Your task to perform on an android device: Clear all items from cart on newegg. Search for jbl flip 4 on newegg, select the first entry, and add it to the cart. Image 0: 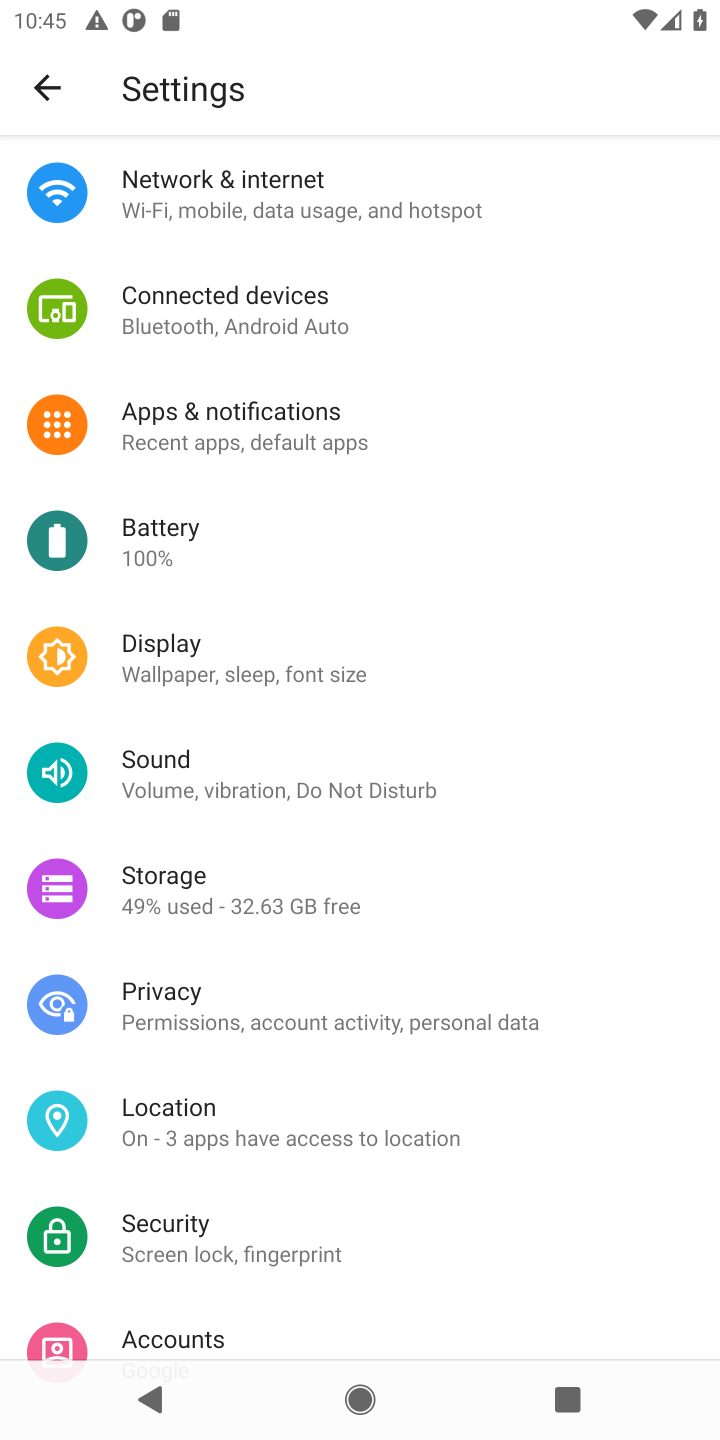
Step 0: press home button
Your task to perform on an android device: Clear all items from cart on newegg. Search for jbl flip 4 on newegg, select the first entry, and add it to the cart. Image 1: 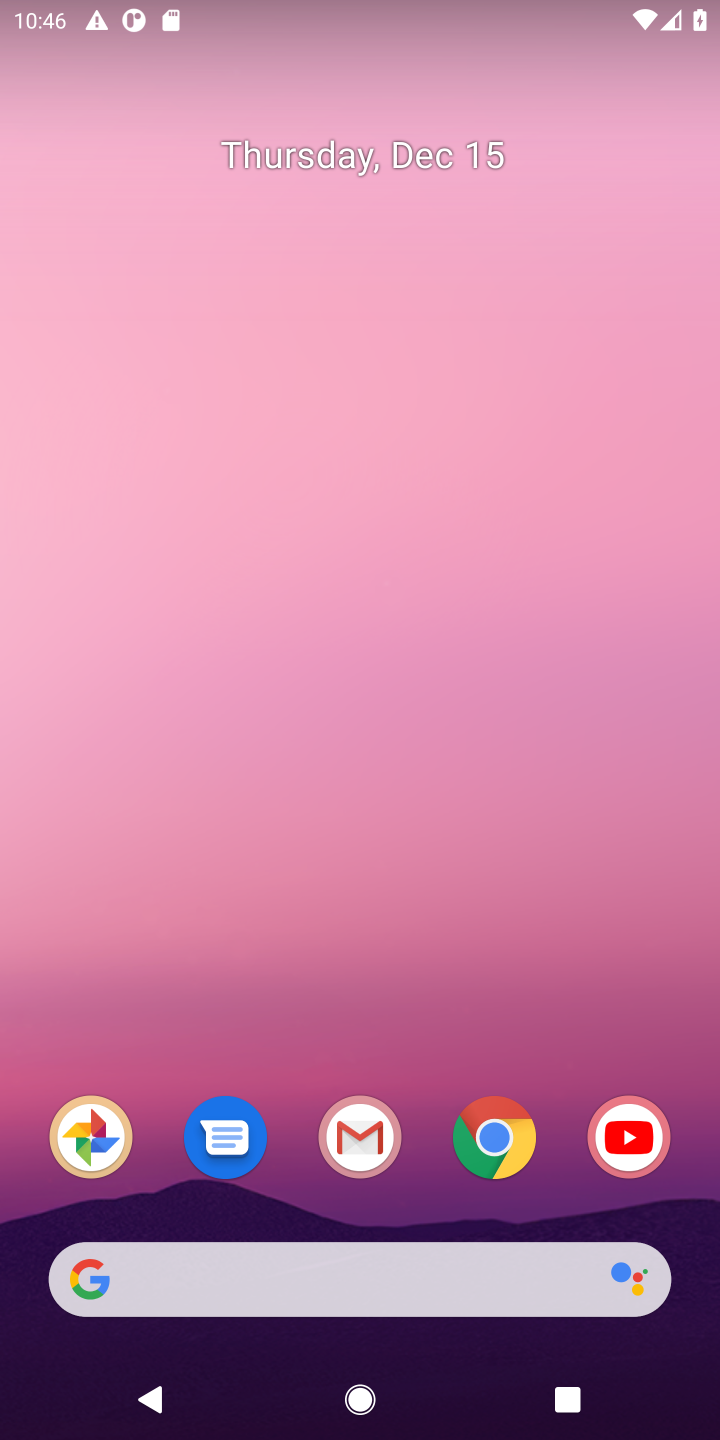
Step 1: drag from (309, 1282) to (314, 172)
Your task to perform on an android device: Clear all items from cart on newegg. Search for jbl flip 4 on newegg, select the first entry, and add it to the cart. Image 2: 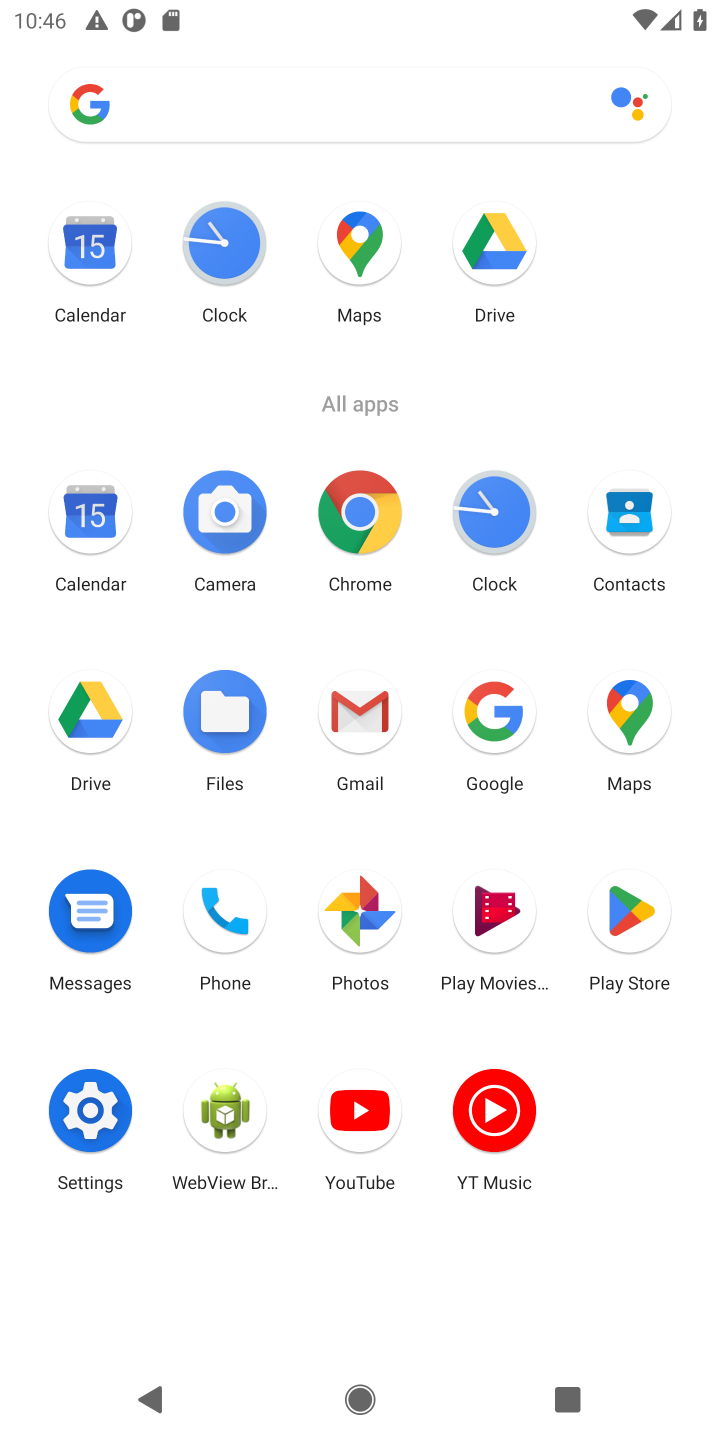
Step 2: click (483, 725)
Your task to perform on an android device: Clear all items from cart on newegg. Search for jbl flip 4 on newegg, select the first entry, and add it to the cart. Image 3: 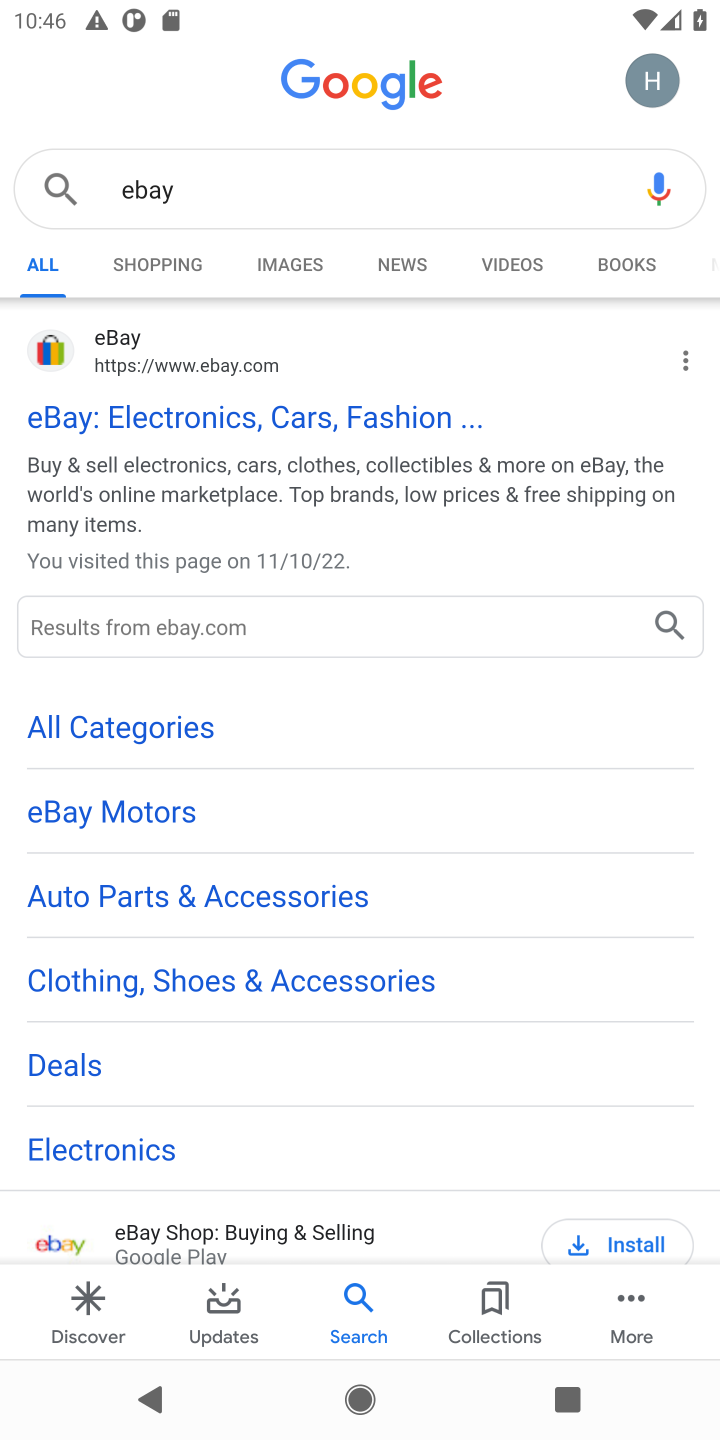
Step 3: click (157, 194)
Your task to perform on an android device: Clear all items from cart on newegg. Search for jbl flip 4 on newegg, select the first entry, and add it to the cart. Image 4: 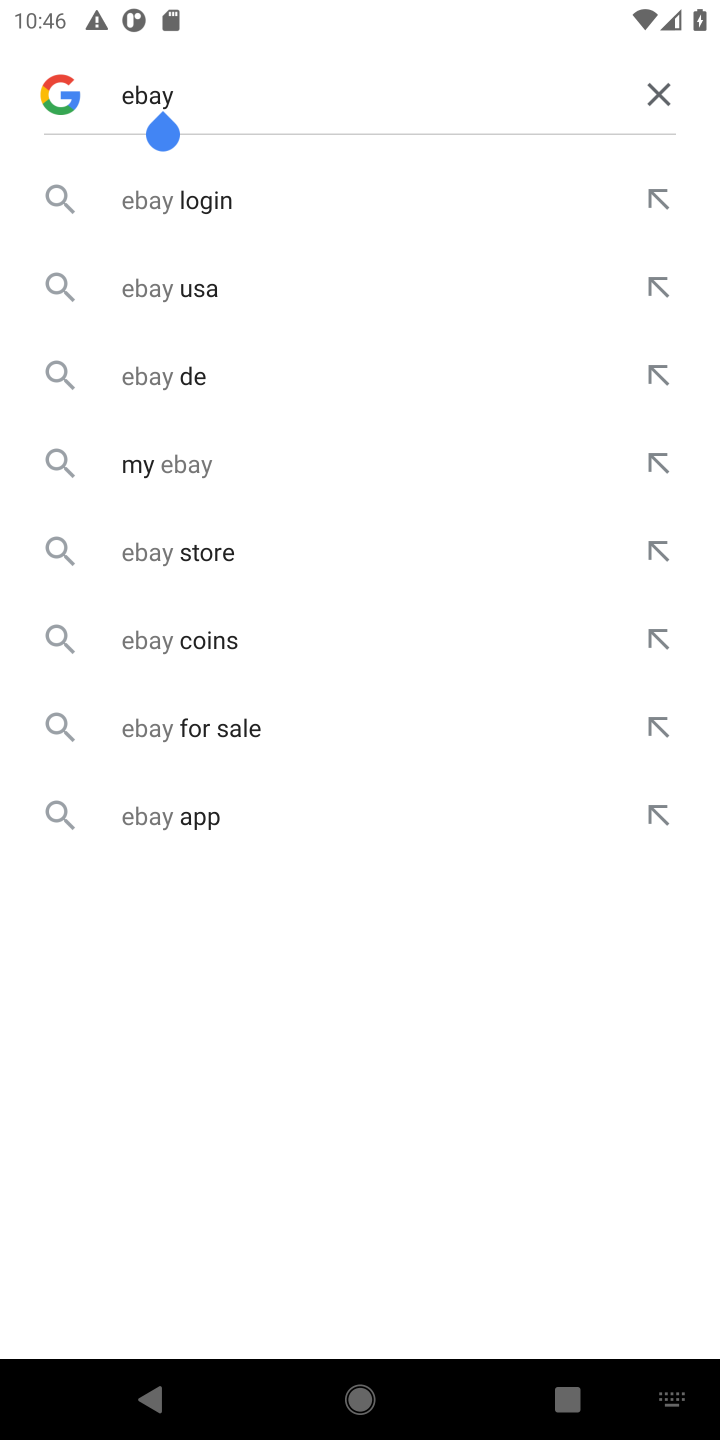
Step 4: click (648, 98)
Your task to perform on an android device: Clear all items from cart on newegg. Search for jbl flip 4 on newegg, select the first entry, and add it to the cart. Image 5: 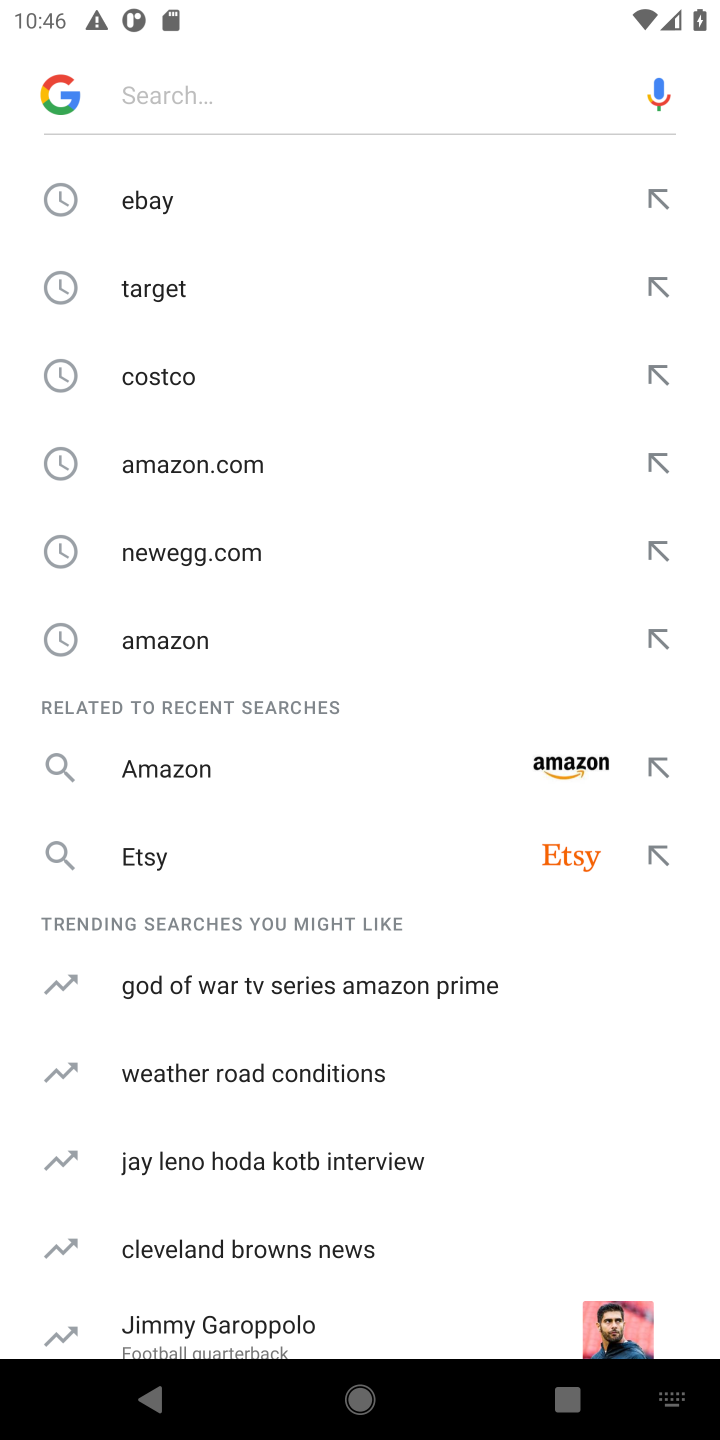
Step 5: click (181, 550)
Your task to perform on an android device: Clear all items from cart on newegg. Search for jbl flip 4 on newegg, select the first entry, and add it to the cart. Image 6: 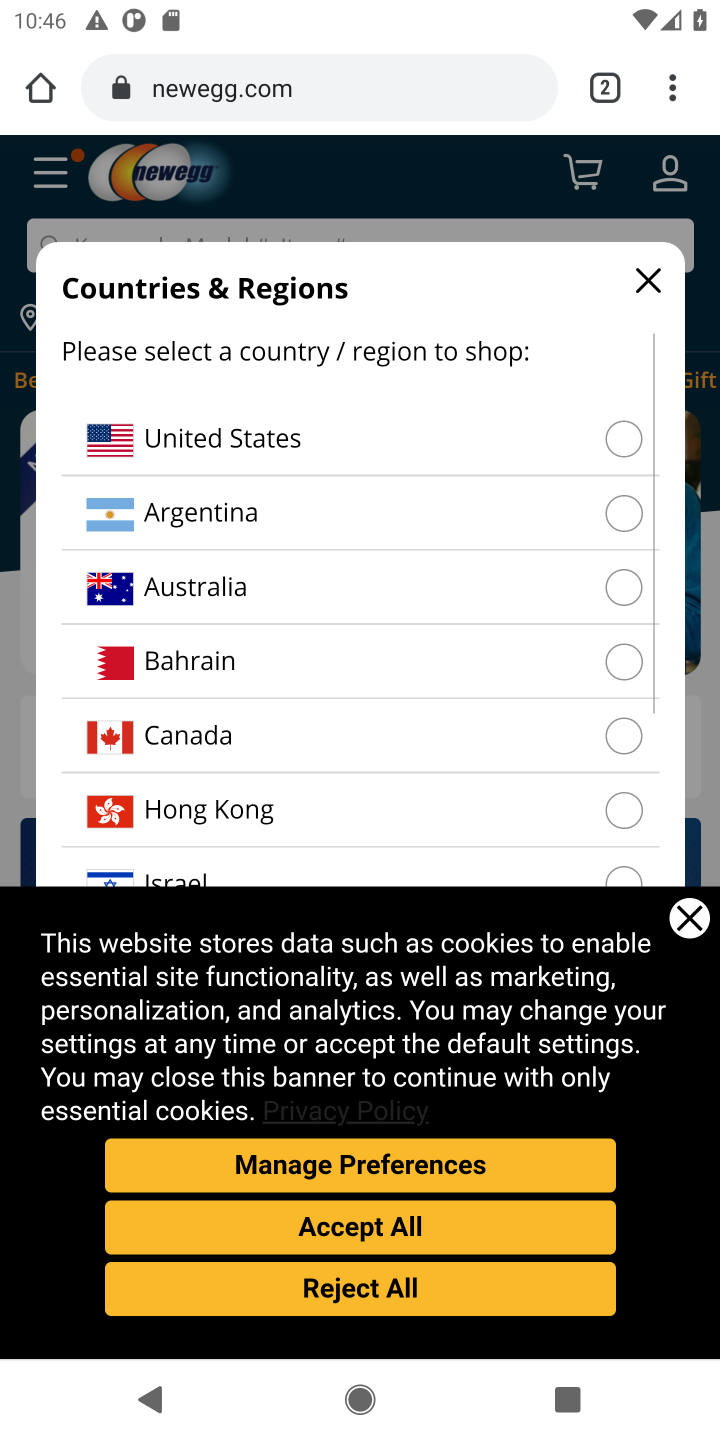
Step 6: click (651, 283)
Your task to perform on an android device: Clear all items from cart on newegg. Search for jbl flip 4 on newegg, select the first entry, and add it to the cart. Image 7: 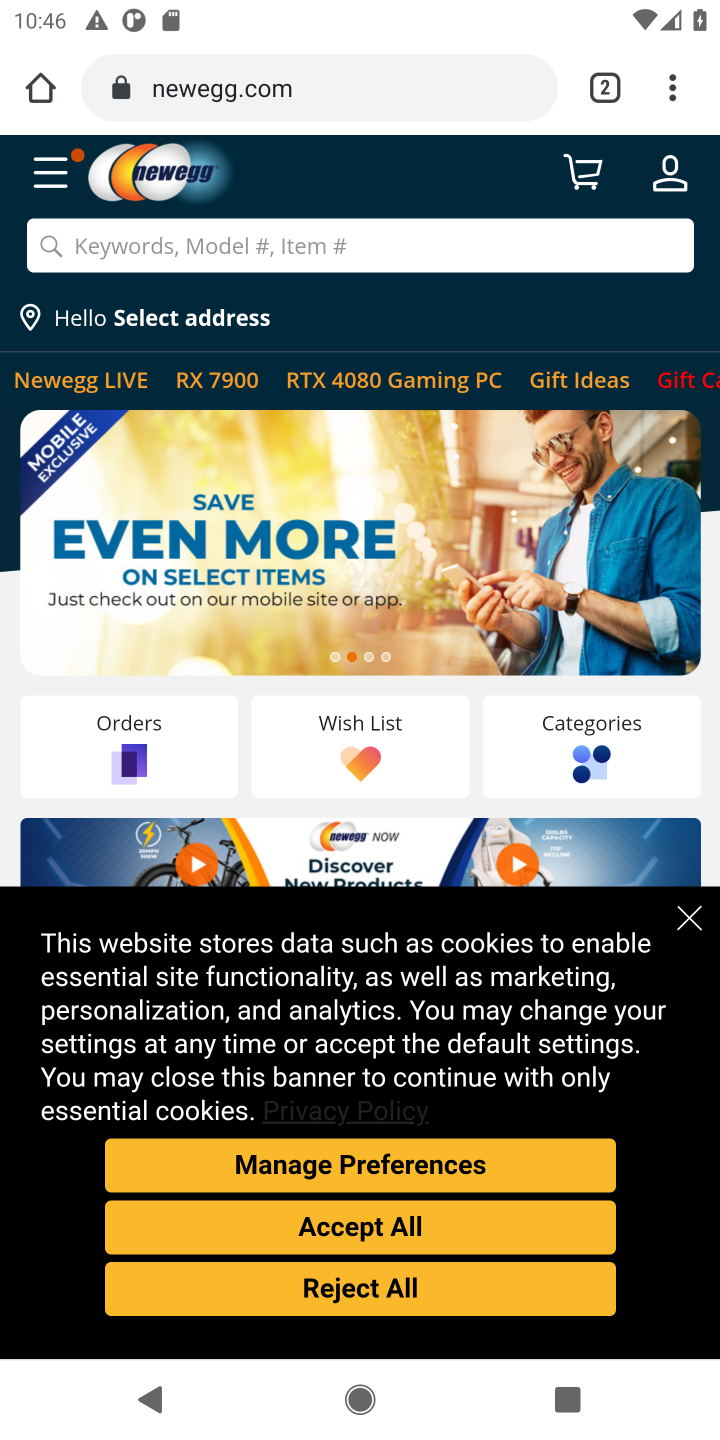
Step 7: click (83, 250)
Your task to perform on an android device: Clear all items from cart on newegg. Search for jbl flip 4 on newegg, select the first entry, and add it to the cart. Image 8: 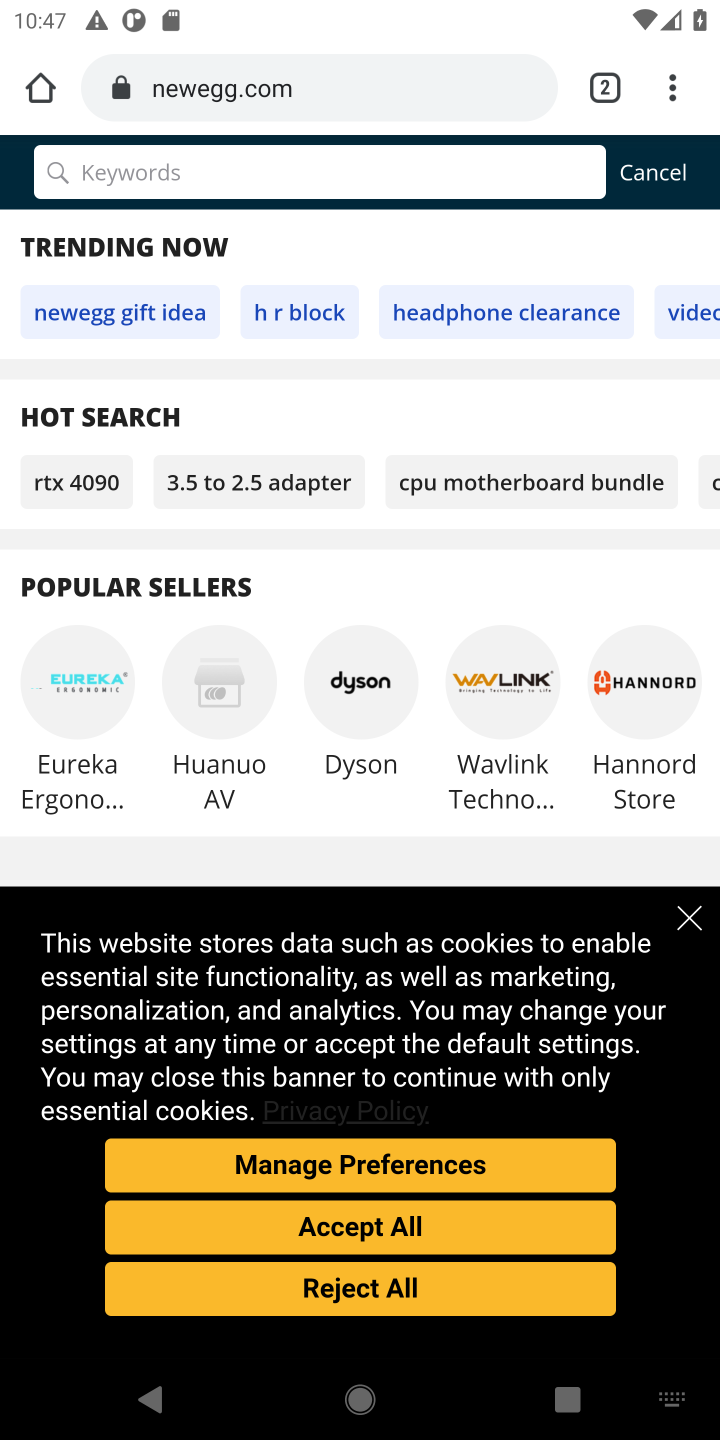
Step 8: click (696, 936)
Your task to perform on an android device: Clear all items from cart on newegg. Search for jbl flip 4 on newegg, select the first entry, and add it to the cart. Image 9: 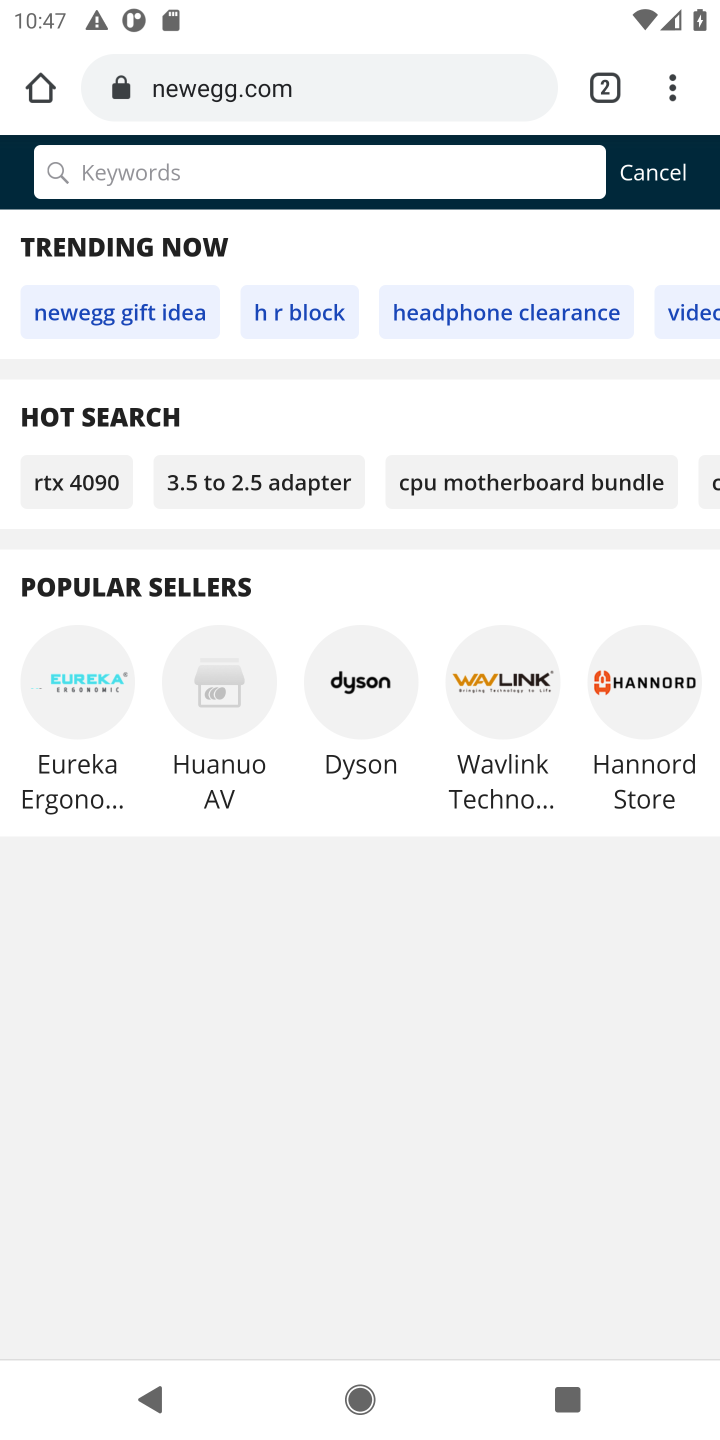
Step 9: click (112, 164)
Your task to perform on an android device: Clear all items from cart on newegg. Search for jbl flip 4 on newegg, select the first entry, and add it to the cart. Image 10: 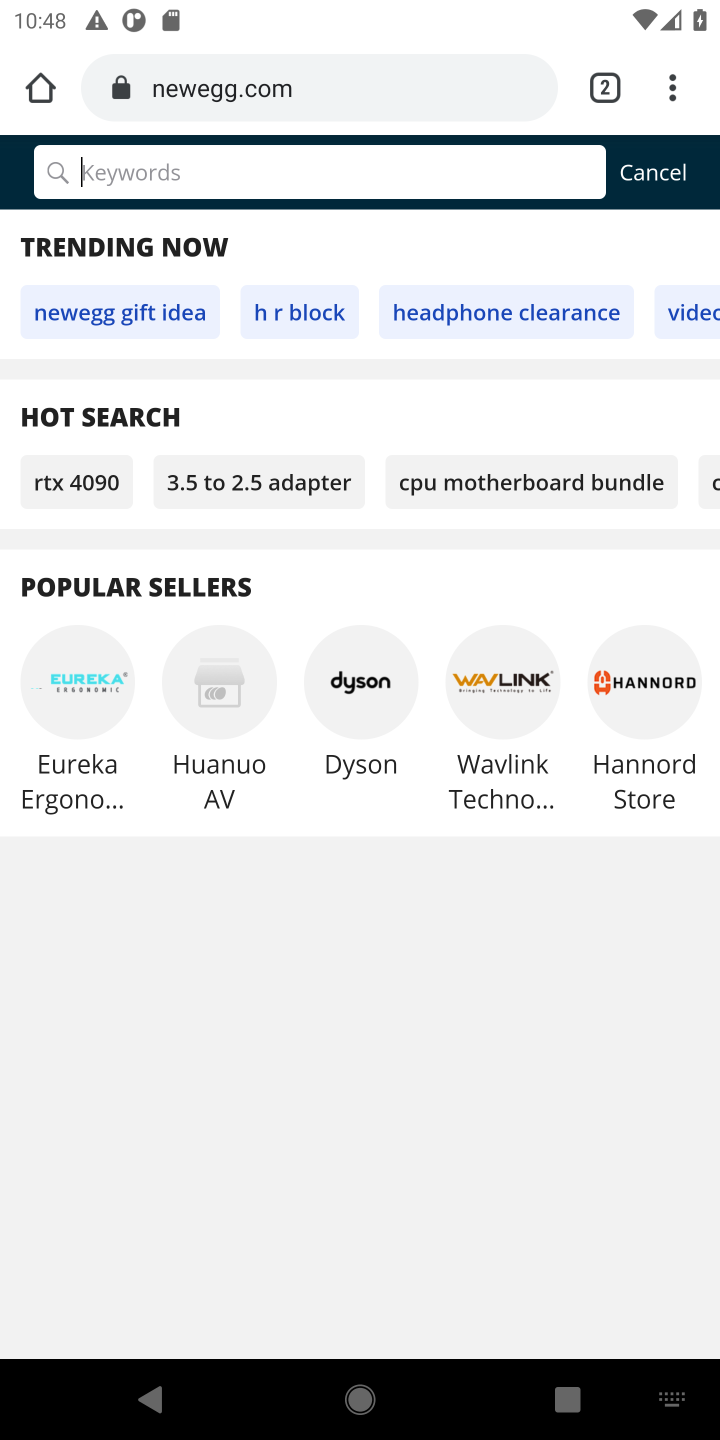
Step 10: click (258, 175)
Your task to perform on an android device: Clear all items from cart on newegg. Search for jbl flip 4 on newegg, select the first entry, and add it to the cart. Image 11: 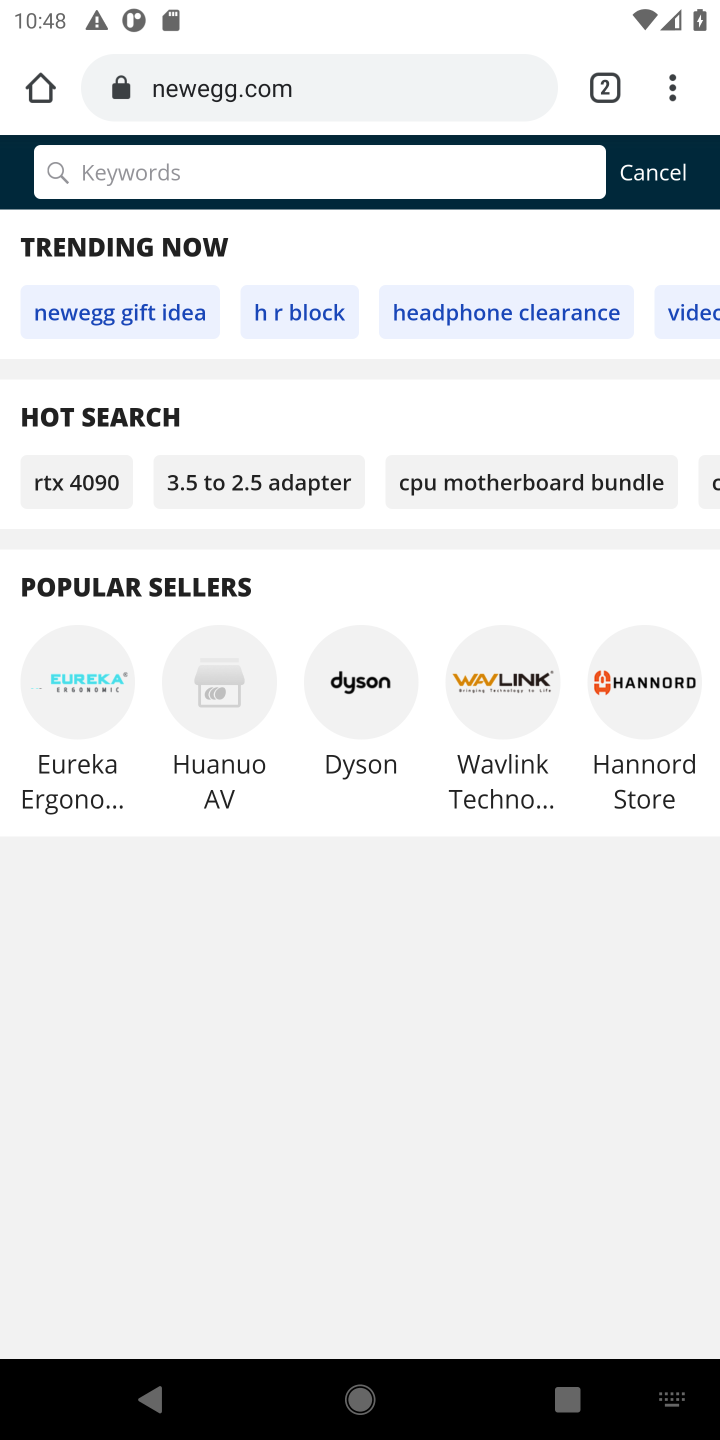
Step 11: type "jbl flip 4"
Your task to perform on an android device: Clear all items from cart on newegg. Search for jbl flip 4 on newegg, select the first entry, and add it to the cart. Image 12: 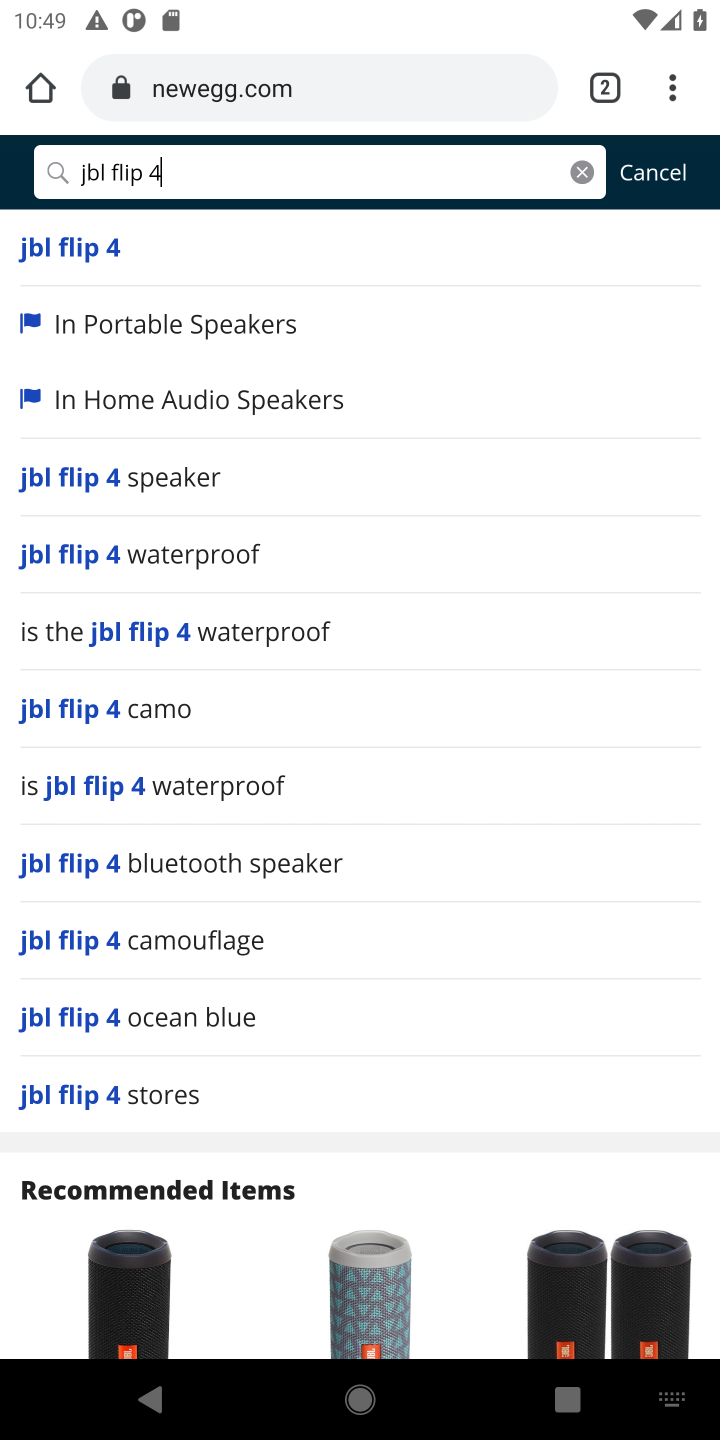
Step 12: click (107, 239)
Your task to perform on an android device: Clear all items from cart on newegg. Search for jbl flip 4 on newegg, select the first entry, and add it to the cart. Image 13: 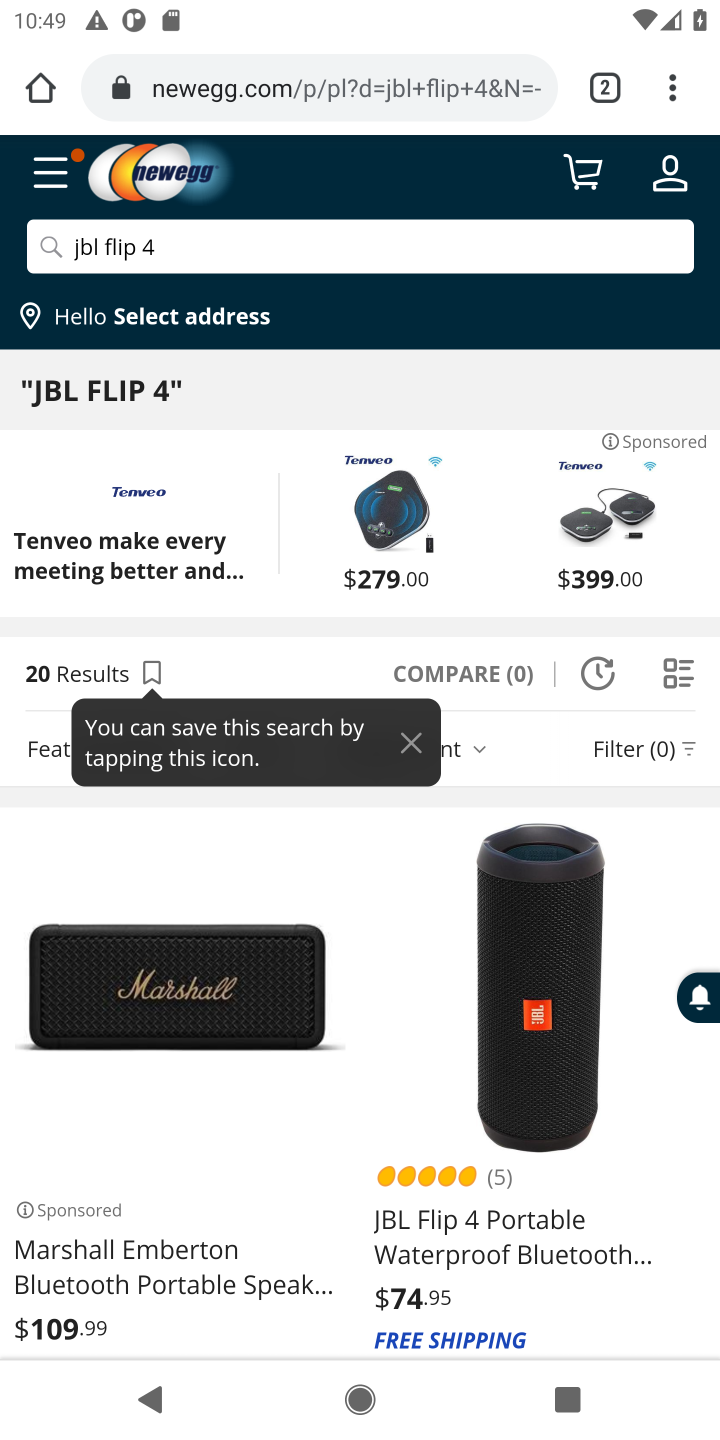
Step 13: drag from (356, 1251) to (386, 688)
Your task to perform on an android device: Clear all items from cart on newegg. Search for jbl flip 4 on newegg, select the first entry, and add it to the cart. Image 14: 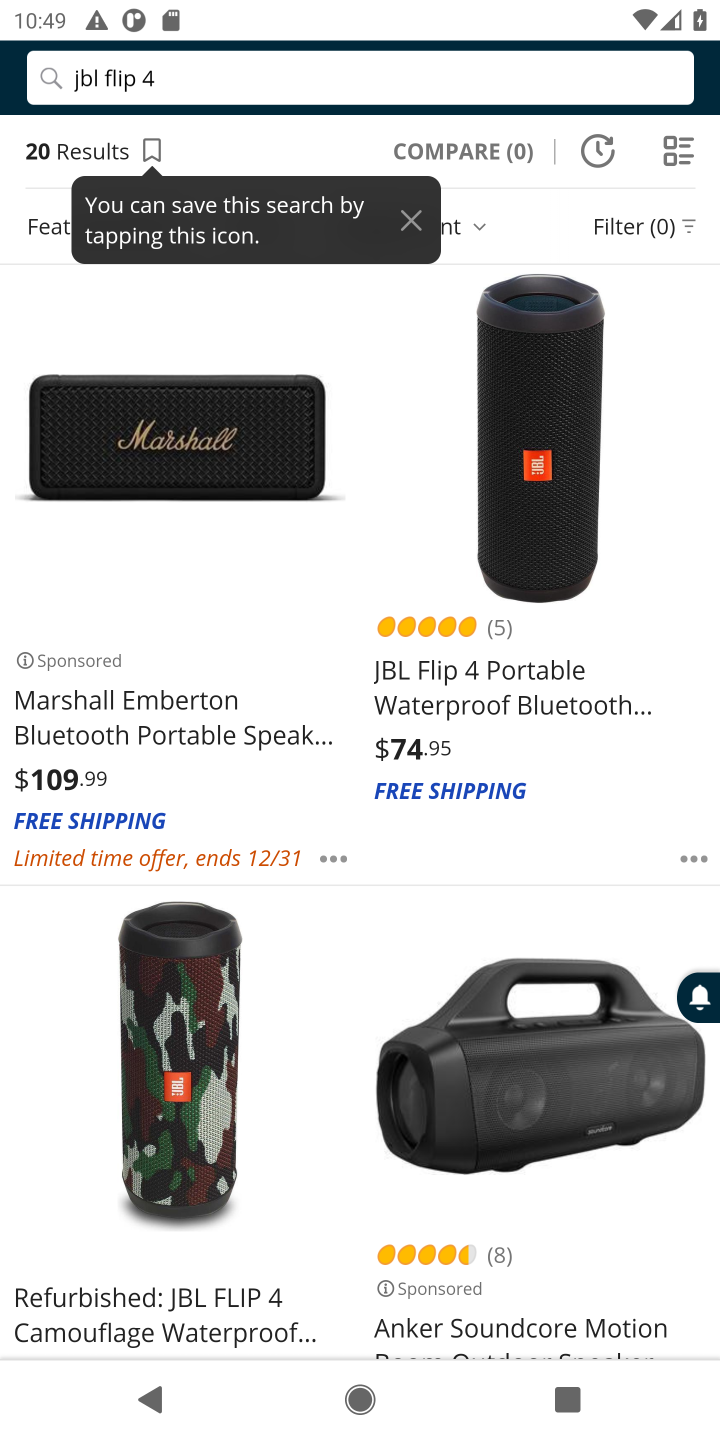
Step 14: click (130, 659)
Your task to perform on an android device: Clear all items from cart on newegg. Search for jbl flip 4 on newegg, select the first entry, and add it to the cart. Image 15: 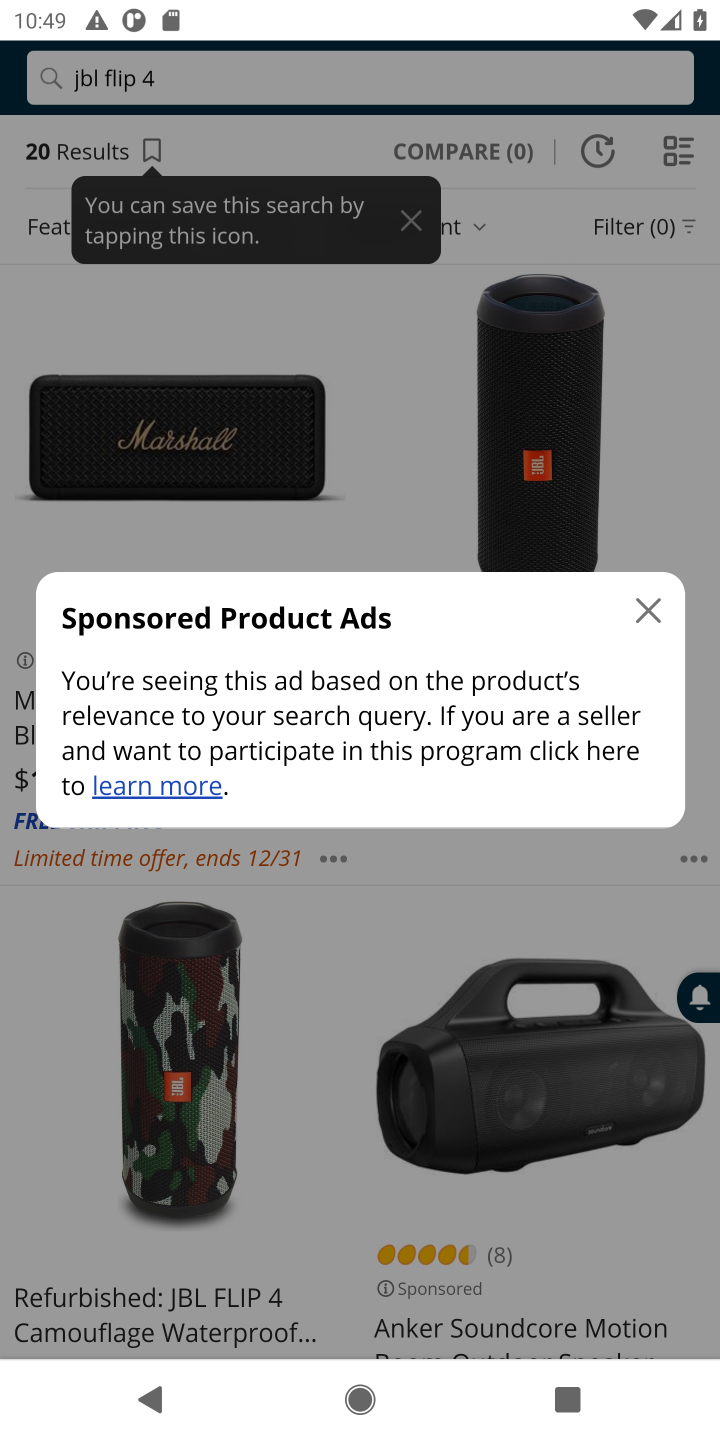
Step 15: click (644, 612)
Your task to perform on an android device: Clear all items from cart on newegg. Search for jbl flip 4 on newegg, select the first entry, and add it to the cart. Image 16: 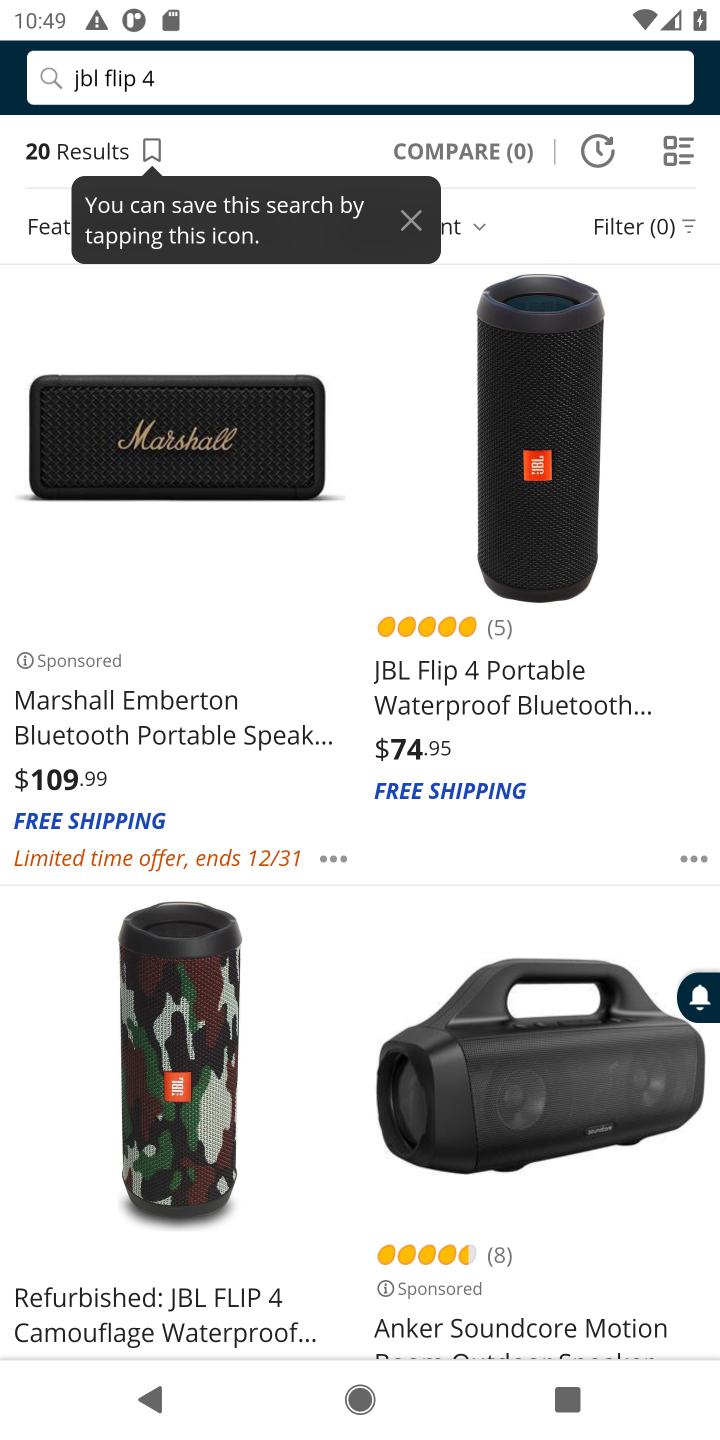
Step 16: click (124, 745)
Your task to perform on an android device: Clear all items from cart on newegg. Search for jbl flip 4 on newegg, select the first entry, and add it to the cart. Image 17: 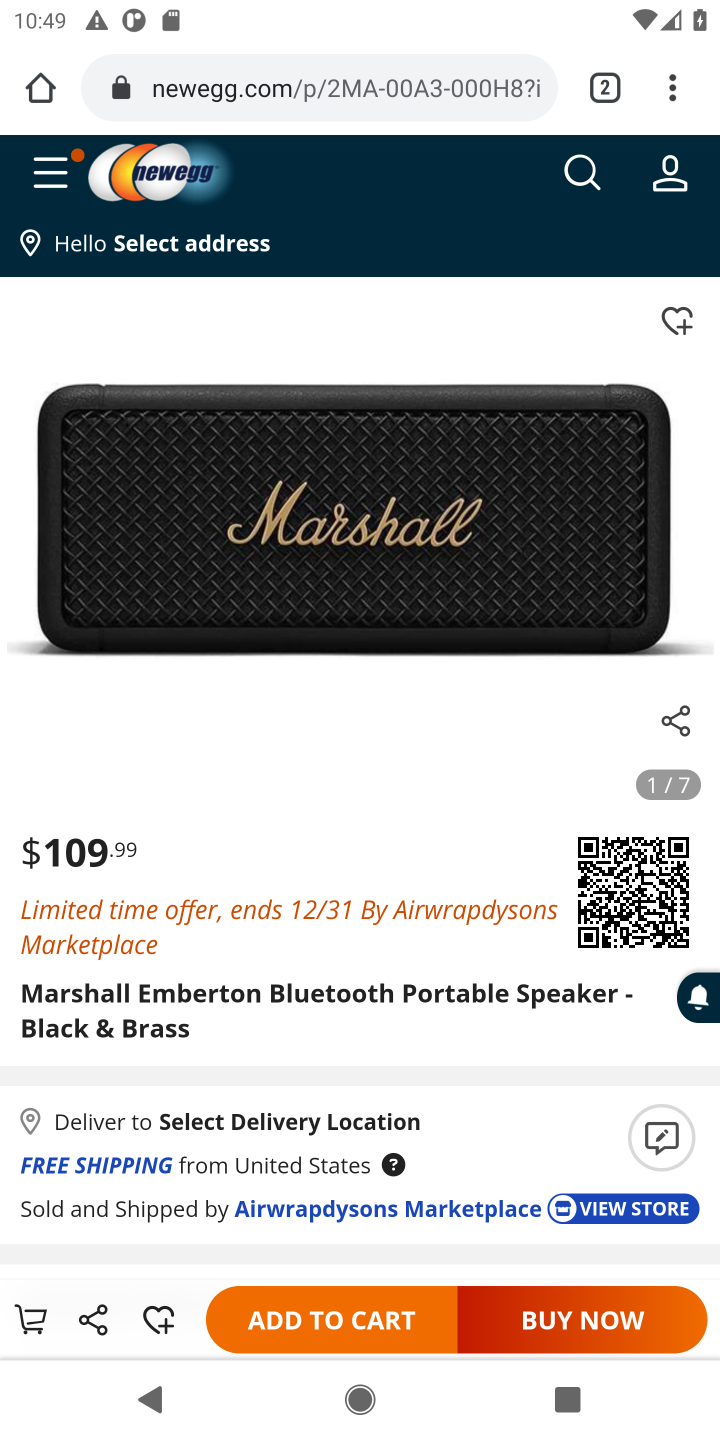
Step 17: click (334, 1317)
Your task to perform on an android device: Clear all items from cart on newegg. Search for jbl flip 4 on newegg, select the first entry, and add it to the cart. Image 18: 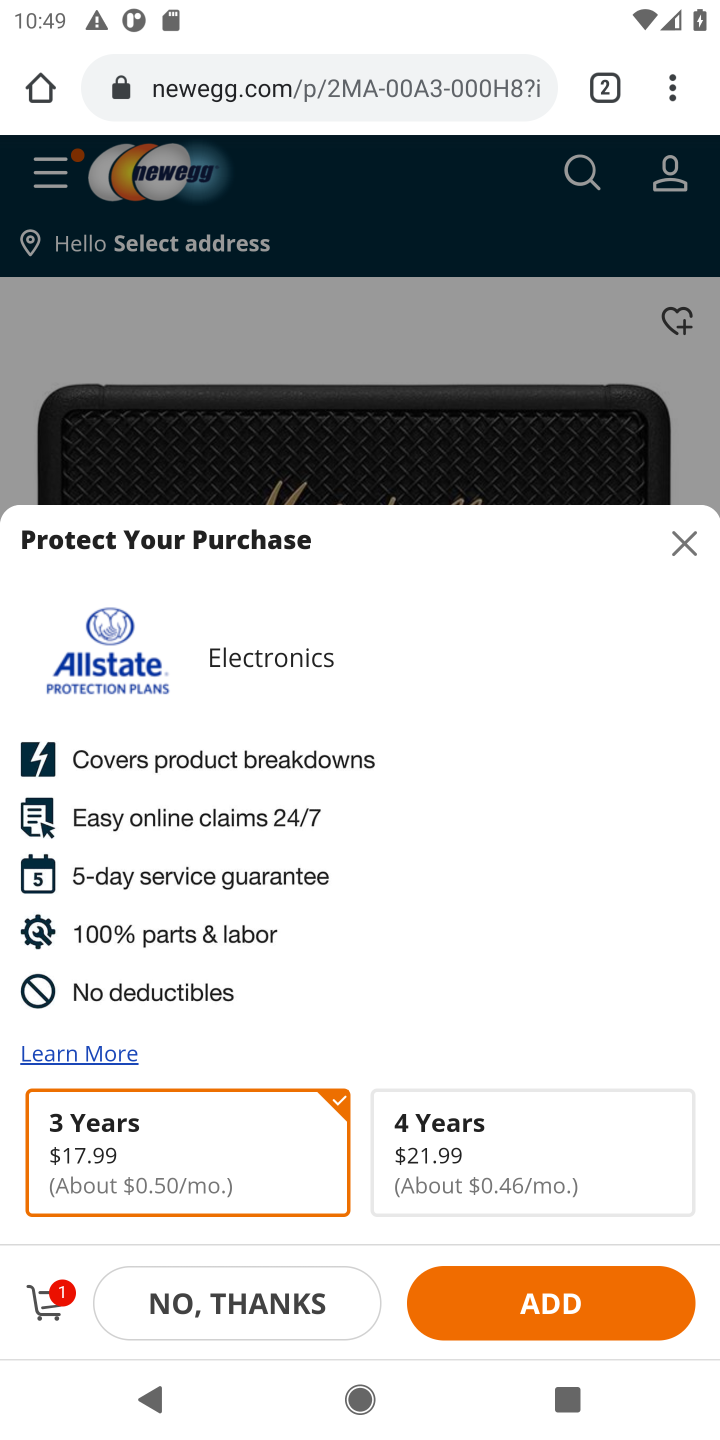
Step 18: click (36, 1302)
Your task to perform on an android device: Clear all items from cart on newegg. Search for jbl flip 4 on newegg, select the first entry, and add it to the cart. Image 19: 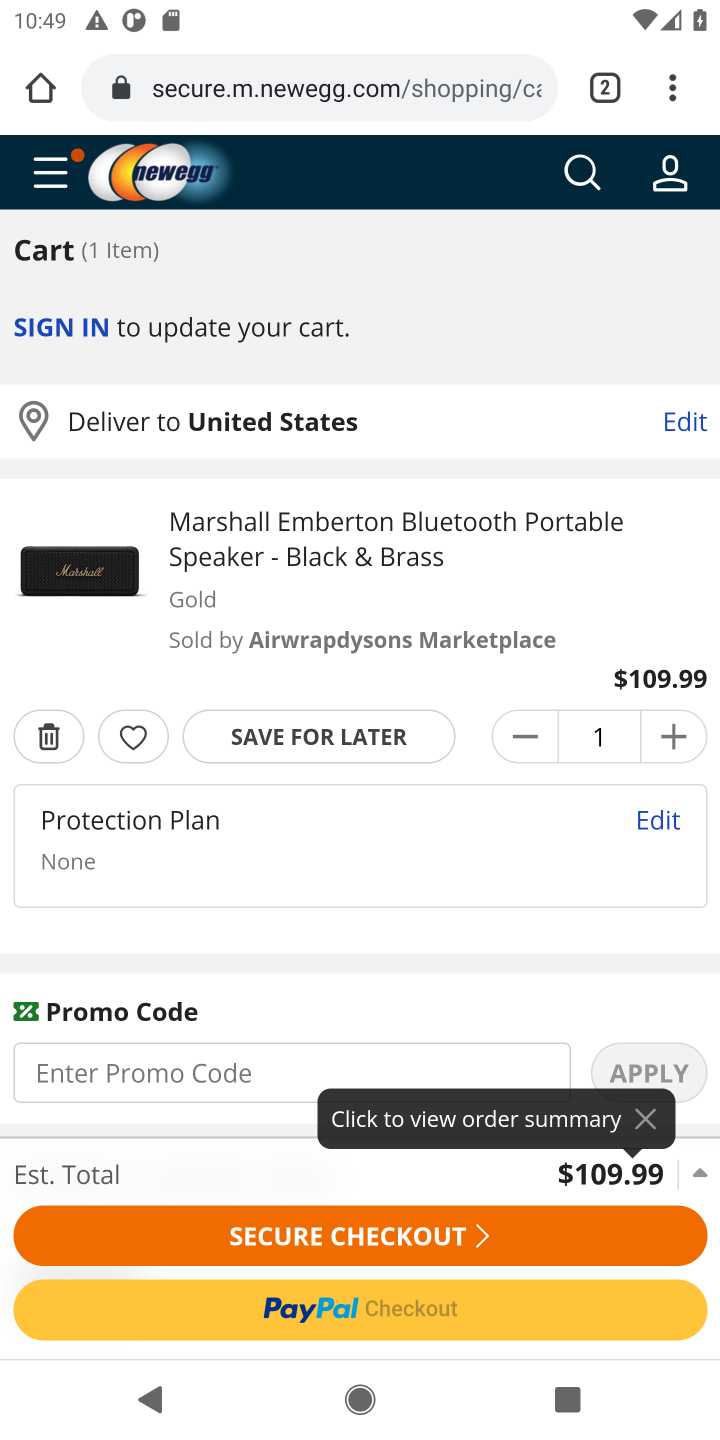
Step 19: click (395, 1237)
Your task to perform on an android device: Clear all items from cart on newegg. Search for jbl flip 4 on newegg, select the first entry, and add it to the cart. Image 20: 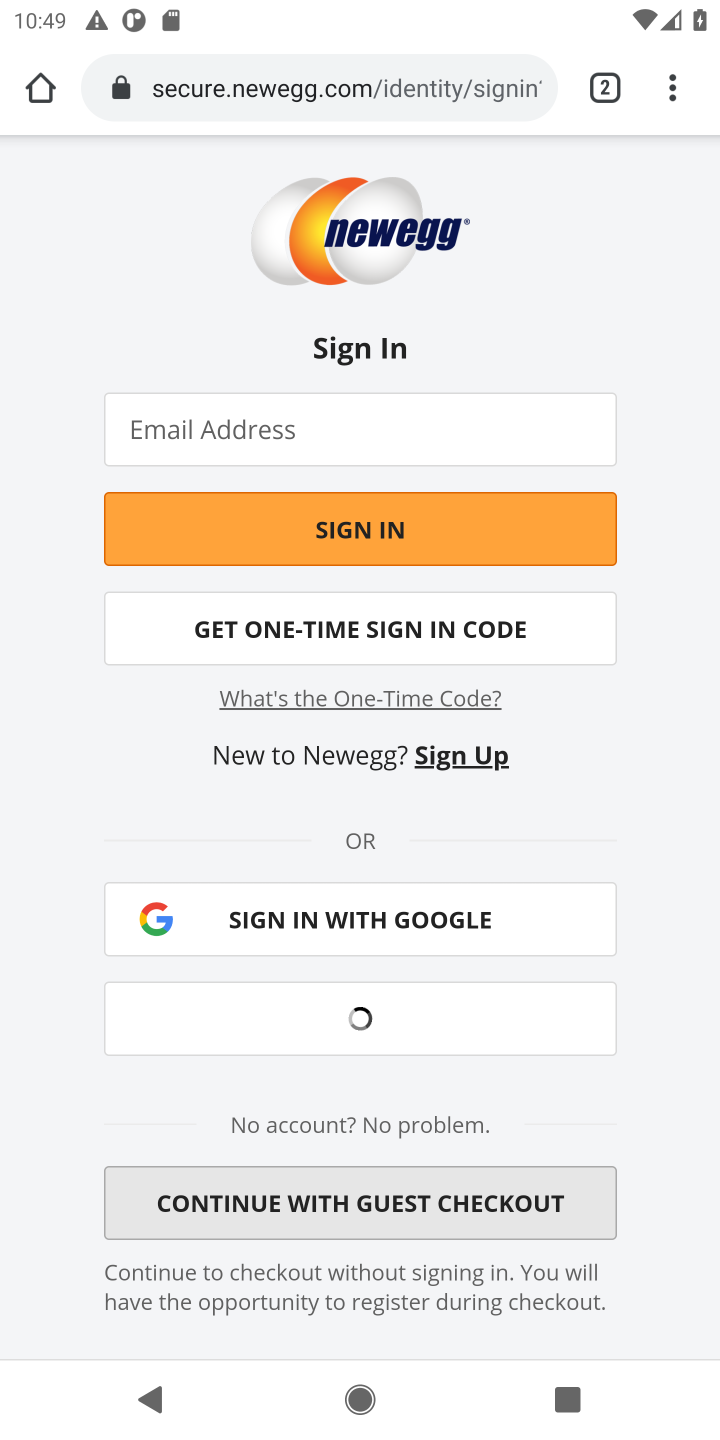
Step 20: task complete